Your task to perform on an android device: open app "DuckDuckGo Privacy Browser" (install if not already installed), go to login, and select forgot password Image 0: 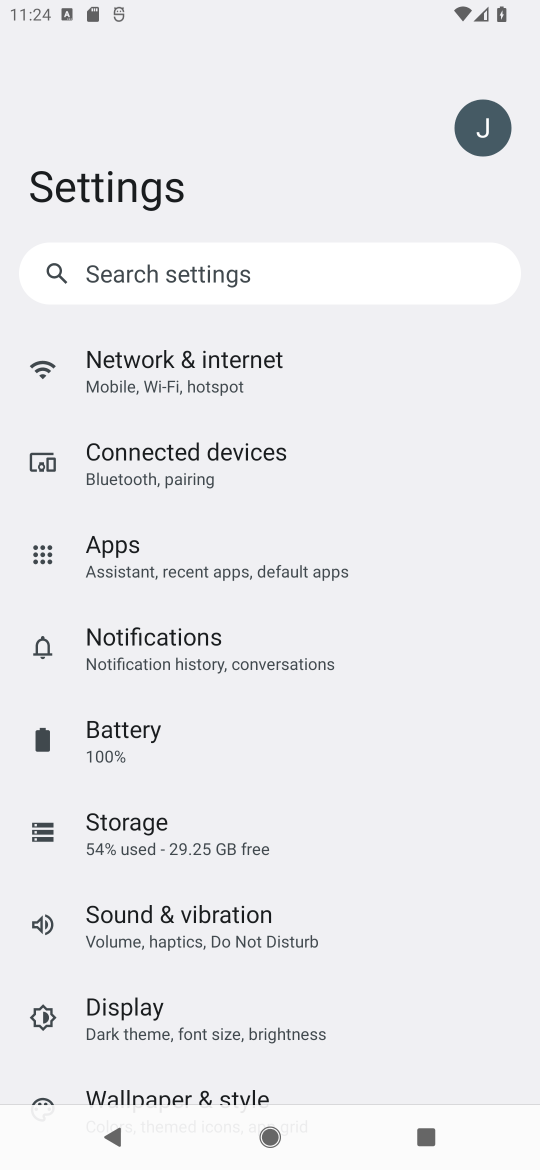
Step 0: press home button
Your task to perform on an android device: open app "DuckDuckGo Privacy Browser" (install if not already installed), go to login, and select forgot password Image 1: 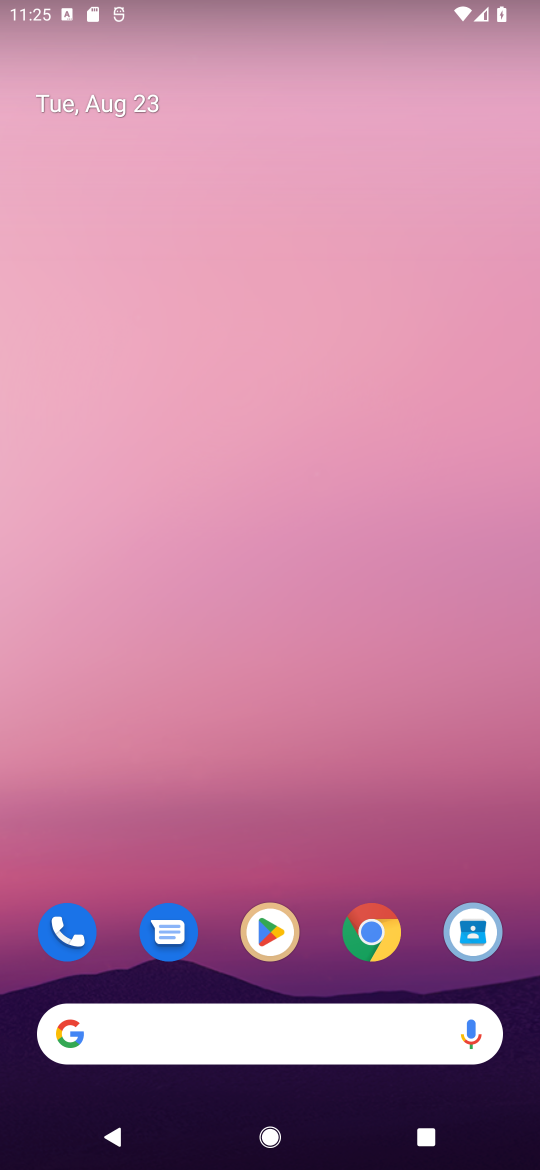
Step 1: click (264, 929)
Your task to perform on an android device: open app "DuckDuckGo Privacy Browser" (install if not already installed), go to login, and select forgot password Image 2: 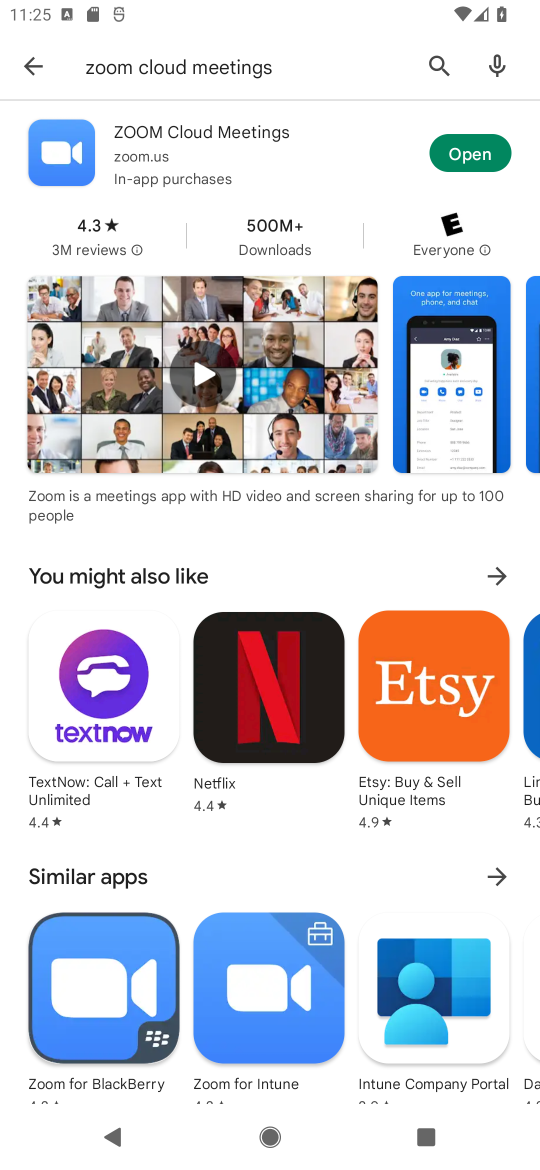
Step 2: click (442, 67)
Your task to perform on an android device: open app "DuckDuckGo Privacy Browser" (install if not already installed), go to login, and select forgot password Image 3: 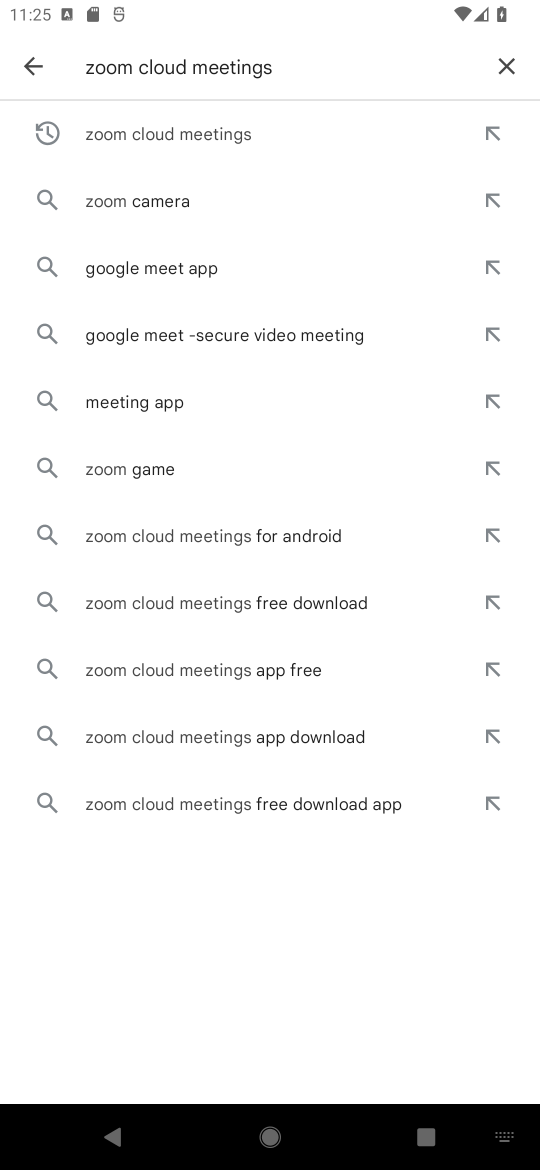
Step 3: click (498, 55)
Your task to perform on an android device: open app "DuckDuckGo Privacy Browser" (install if not already installed), go to login, and select forgot password Image 4: 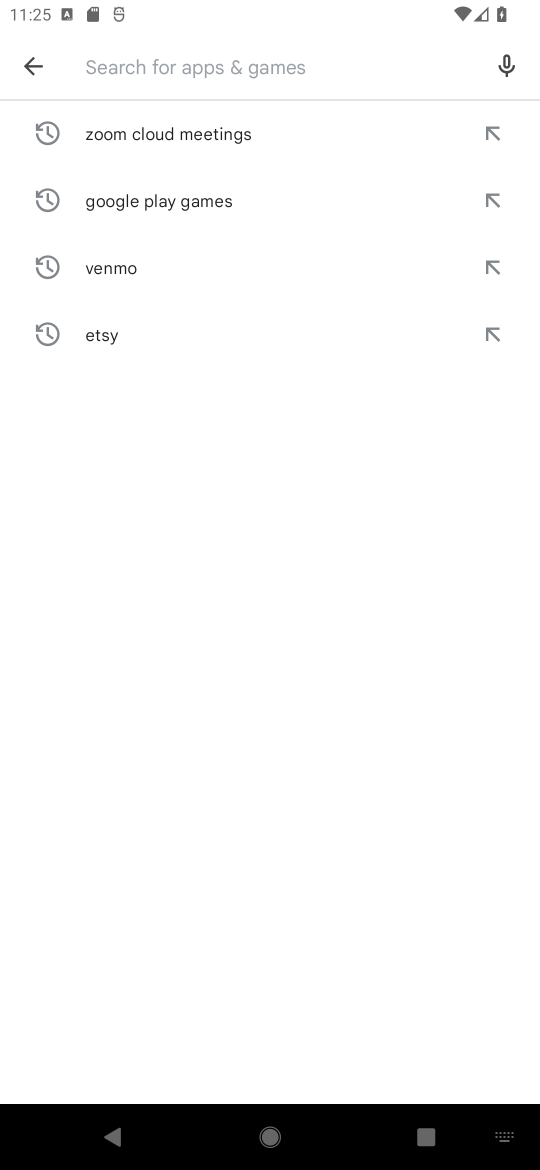
Step 4: click (179, 60)
Your task to perform on an android device: open app "DuckDuckGo Privacy Browser" (install if not already installed), go to login, and select forgot password Image 5: 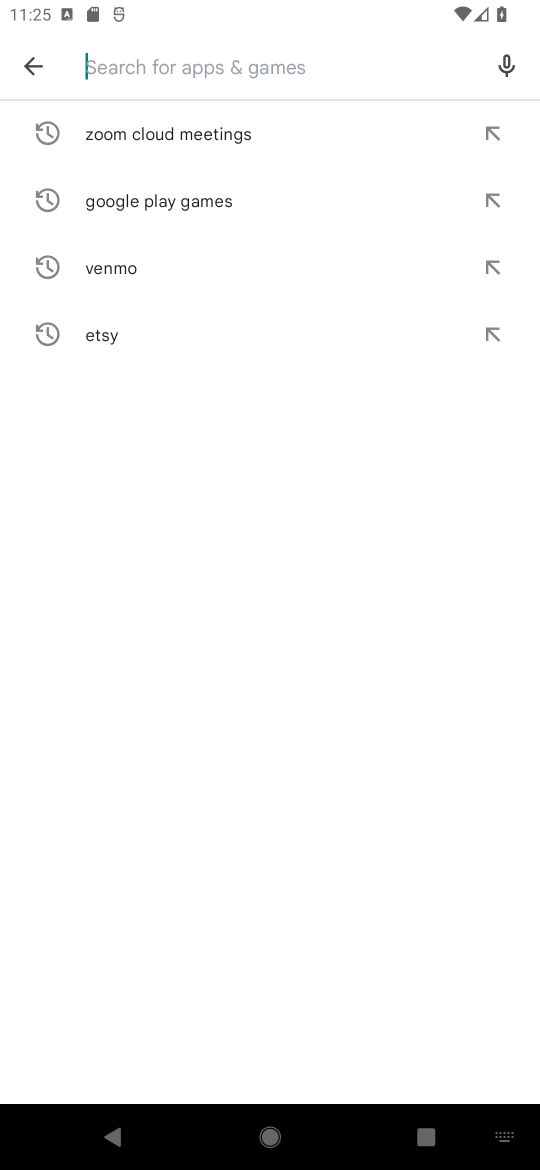
Step 5: type "DuckDuckGo Privacy Browser"
Your task to perform on an android device: open app "DuckDuckGo Privacy Browser" (install if not already installed), go to login, and select forgot password Image 6: 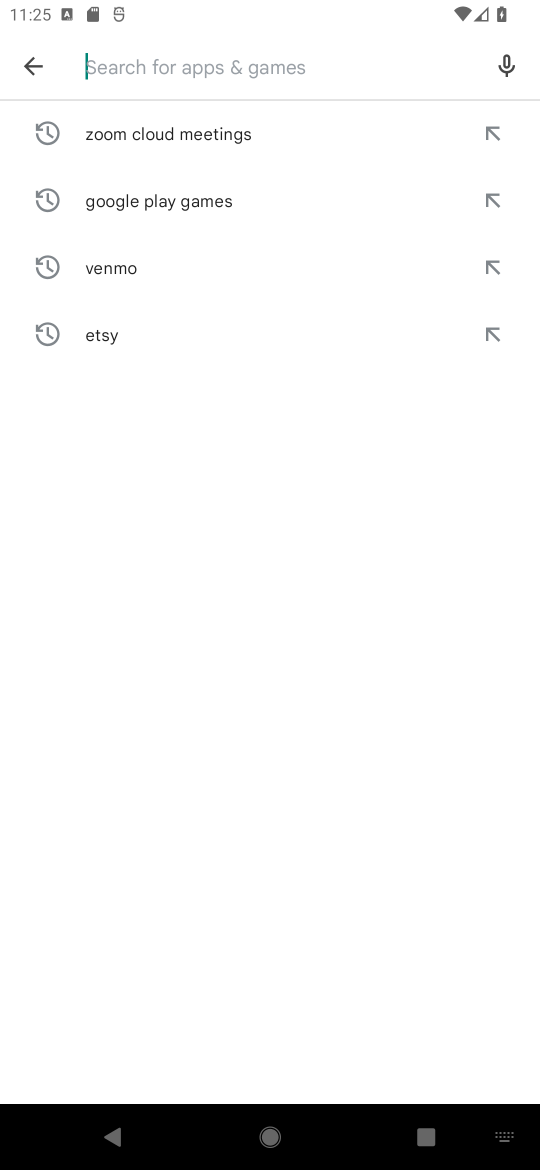
Step 6: click (365, 673)
Your task to perform on an android device: open app "DuckDuckGo Privacy Browser" (install if not already installed), go to login, and select forgot password Image 7: 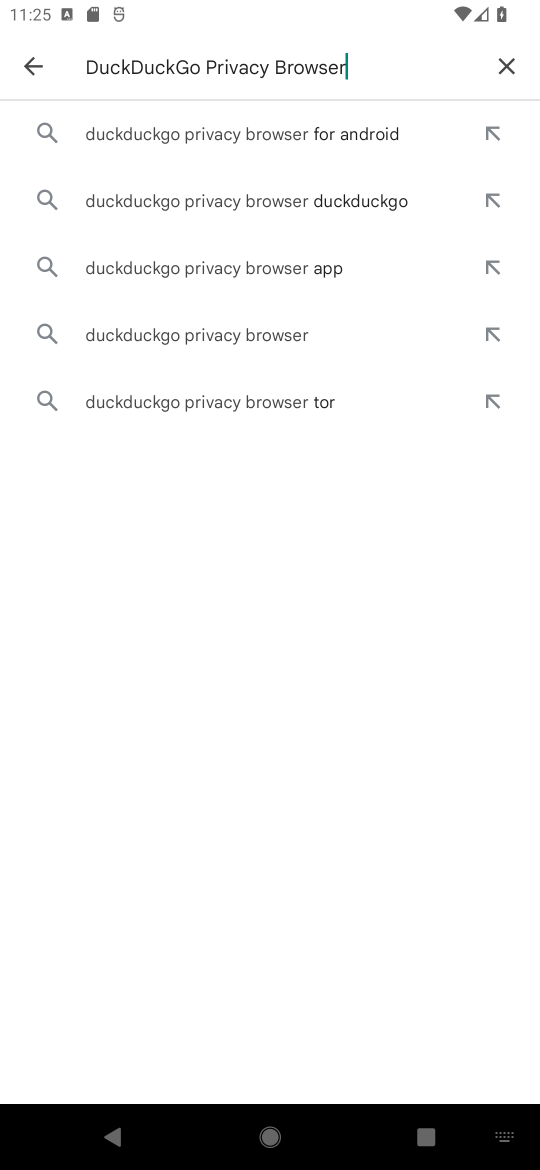
Step 7: click (284, 139)
Your task to perform on an android device: open app "DuckDuckGo Privacy Browser" (install if not already installed), go to login, and select forgot password Image 8: 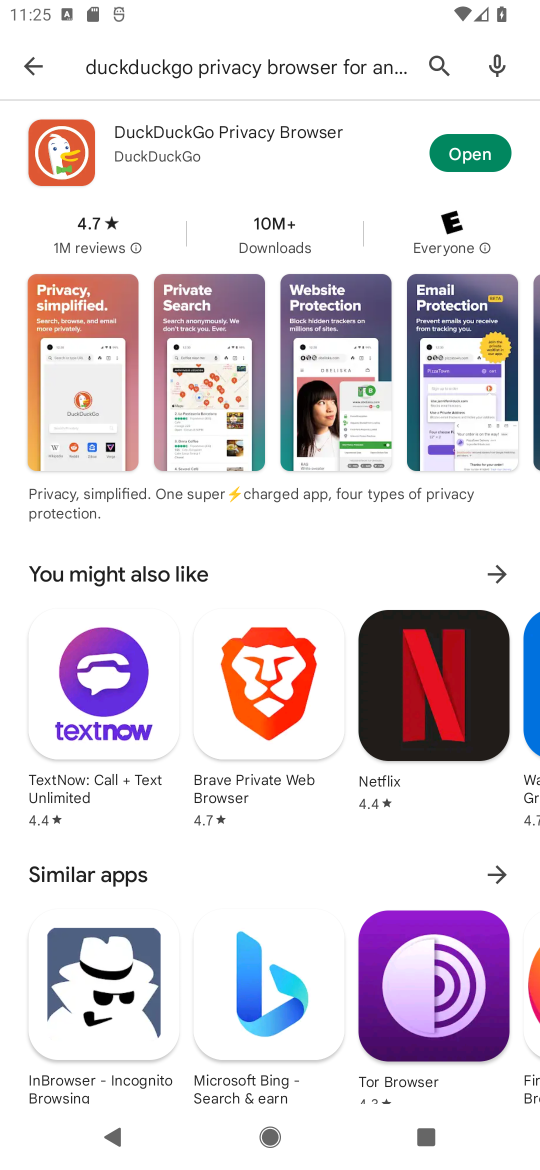
Step 8: click (477, 143)
Your task to perform on an android device: open app "DuckDuckGo Privacy Browser" (install if not already installed), go to login, and select forgot password Image 9: 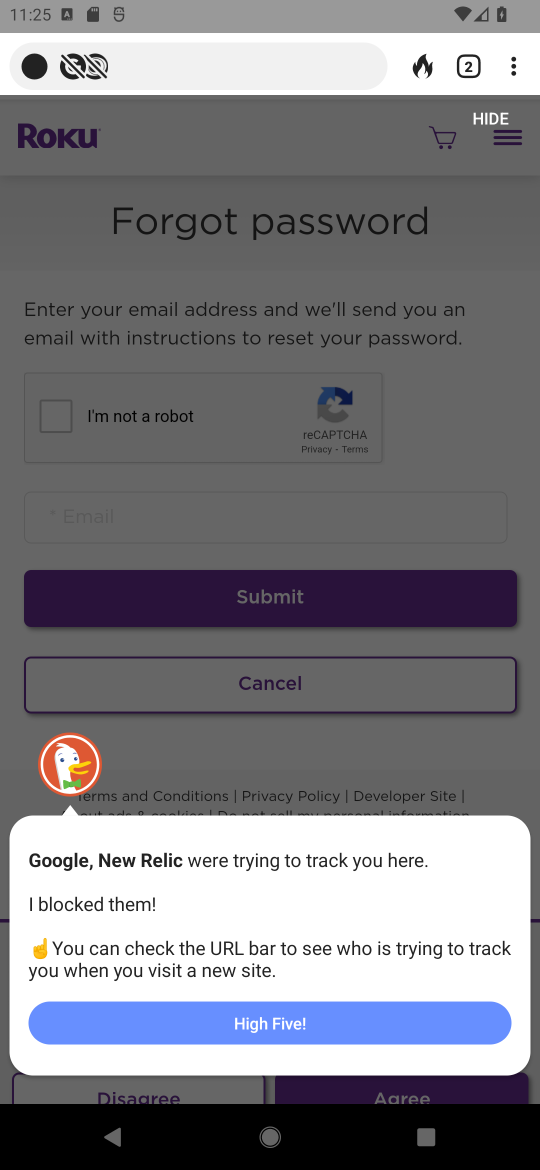
Step 9: click (497, 113)
Your task to perform on an android device: open app "DuckDuckGo Privacy Browser" (install if not already installed), go to login, and select forgot password Image 10: 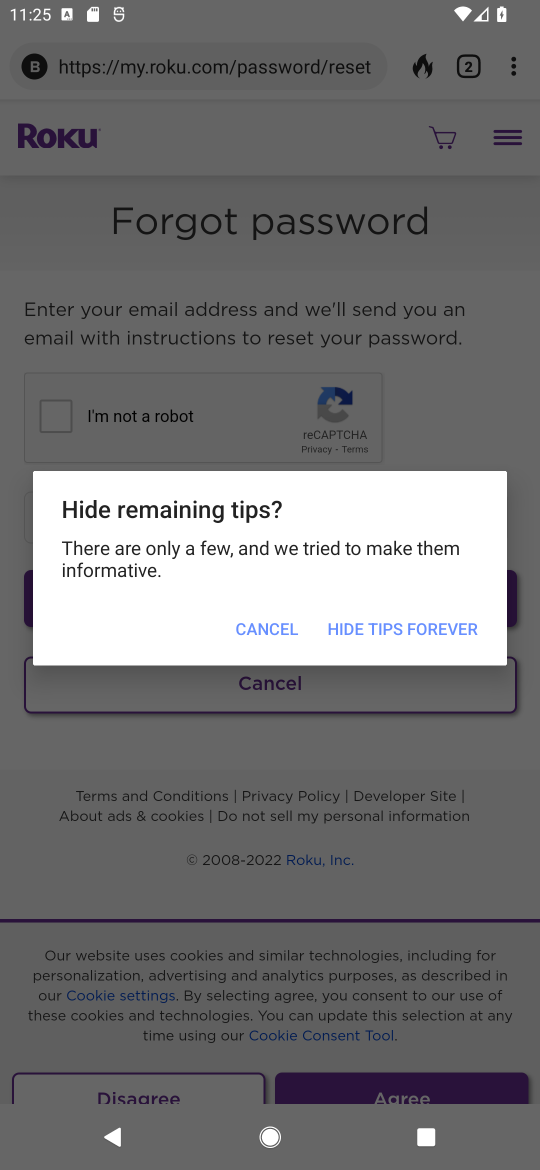
Step 10: click (260, 635)
Your task to perform on an android device: open app "DuckDuckGo Privacy Browser" (install if not already installed), go to login, and select forgot password Image 11: 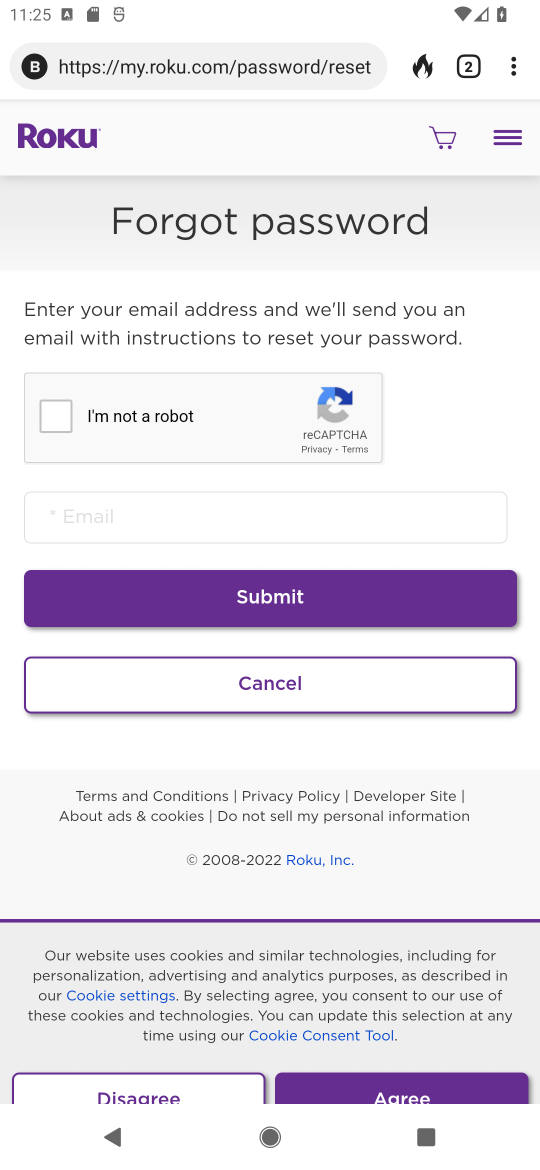
Step 11: drag from (289, 929) to (458, 394)
Your task to perform on an android device: open app "DuckDuckGo Privacy Browser" (install if not already installed), go to login, and select forgot password Image 12: 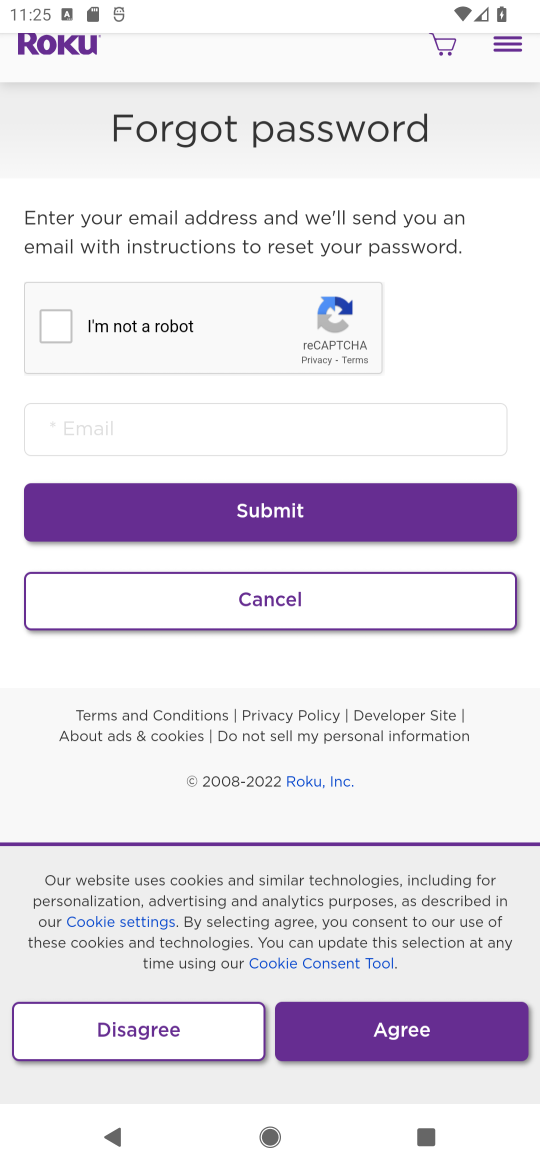
Step 12: click (384, 1017)
Your task to perform on an android device: open app "DuckDuckGo Privacy Browser" (install if not already installed), go to login, and select forgot password Image 13: 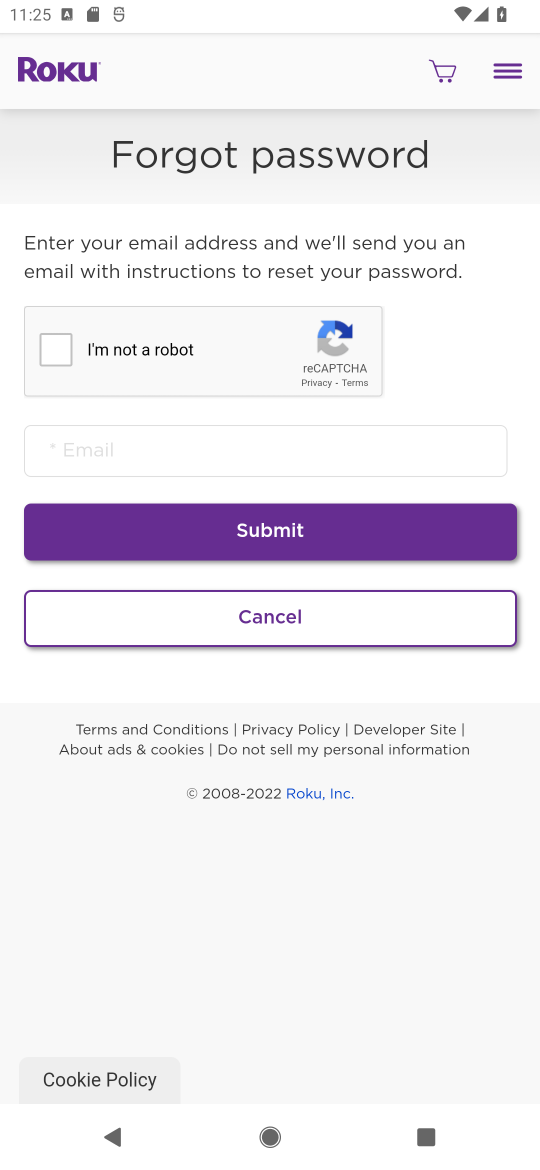
Step 13: click (260, 606)
Your task to perform on an android device: open app "DuckDuckGo Privacy Browser" (install if not already installed), go to login, and select forgot password Image 14: 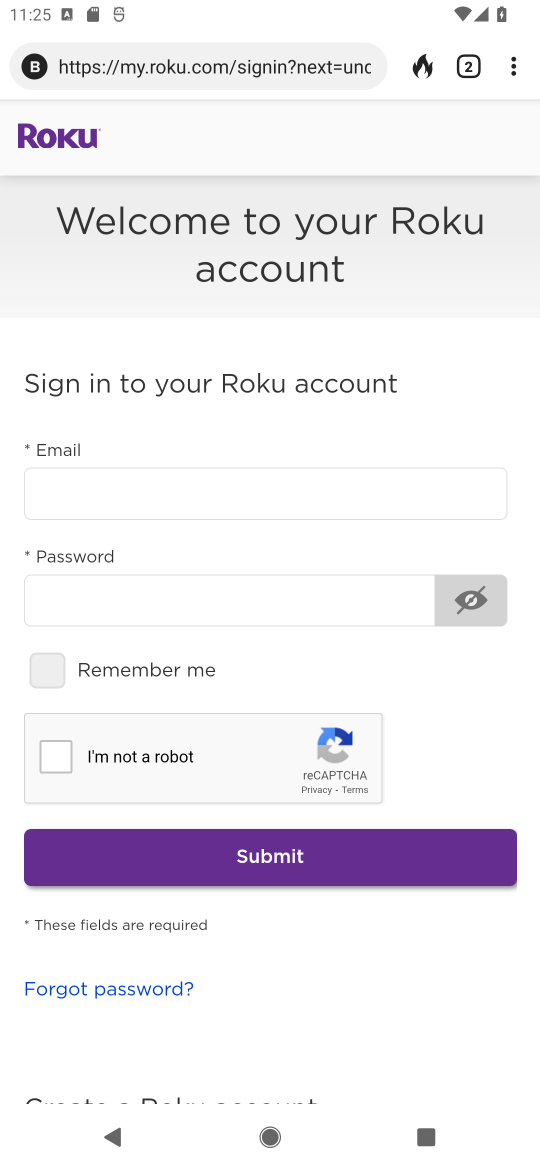
Step 14: click (74, 974)
Your task to perform on an android device: open app "DuckDuckGo Privacy Browser" (install if not already installed), go to login, and select forgot password Image 15: 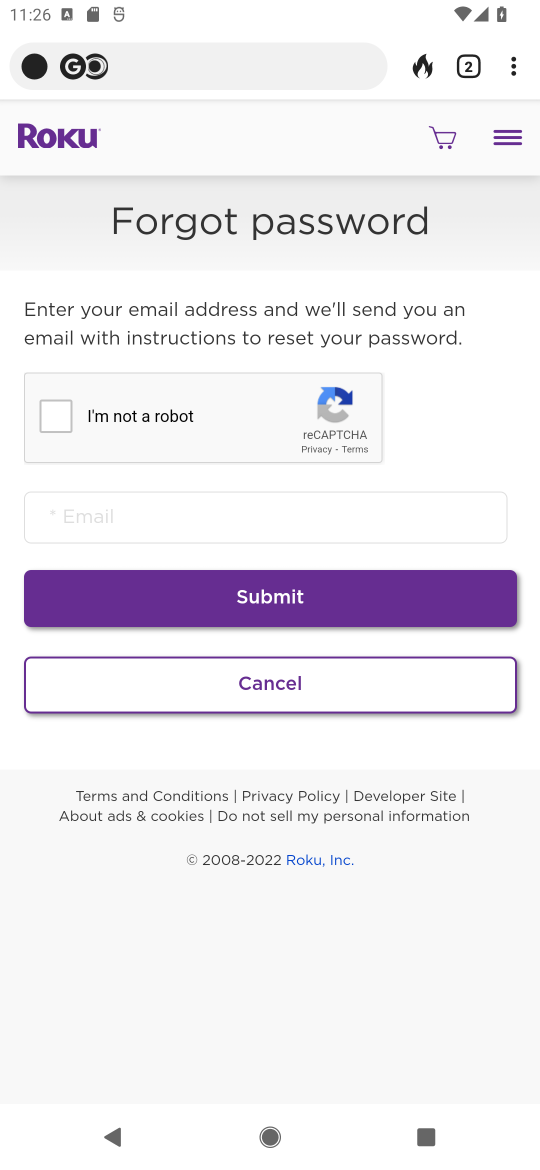
Step 15: task complete